Your task to perform on an android device: turn on notifications settings in the gmail app Image 0: 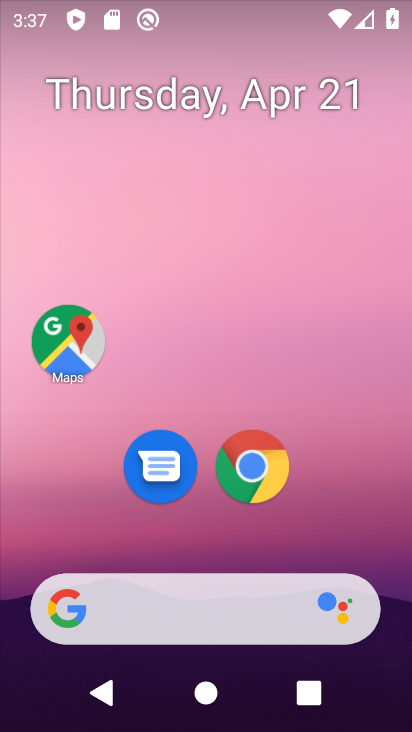
Step 0: drag from (208, 540) to (208, 190)
Your task to perform on an android device: turn on notifications settings in the gmail app Image 1: 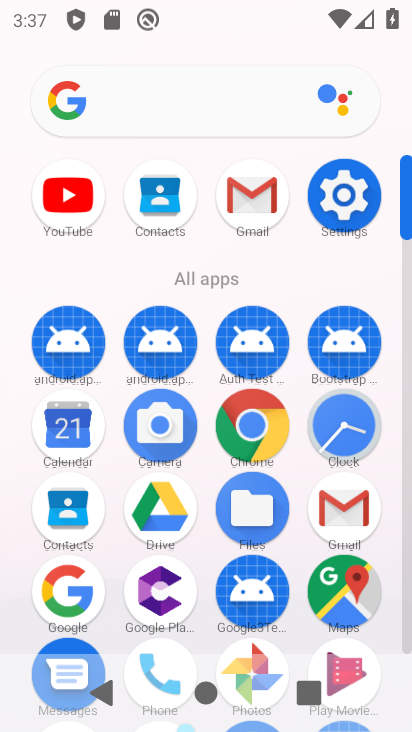
Step 1: click (256, 217)
Your task to perform on an android device: turn on notifications settings in the gmail app Image 2: 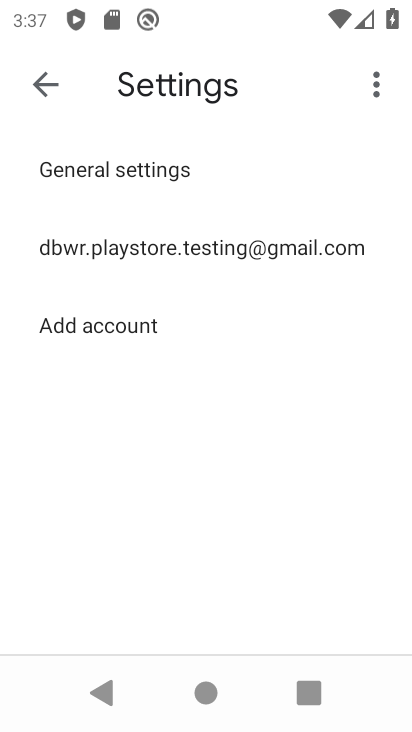
Step 2: click (48, 84)
Your task to perform on an android device: turn on notifications settings in the gmail app Image 3: 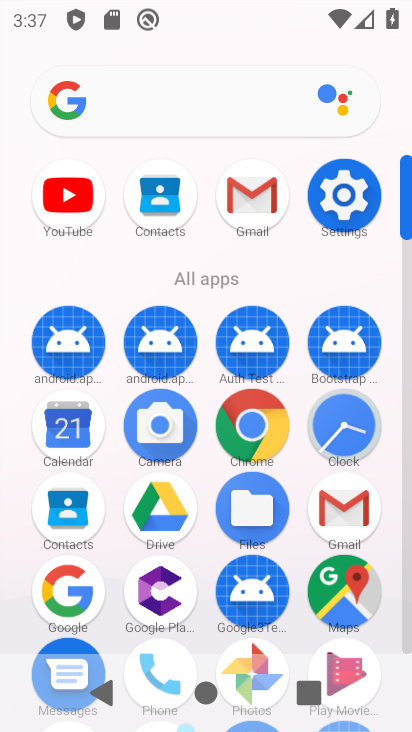
Step 3: click (336, 495)
Your task to perform on an android device: turn on notifications settings in the gmail app Image 4: 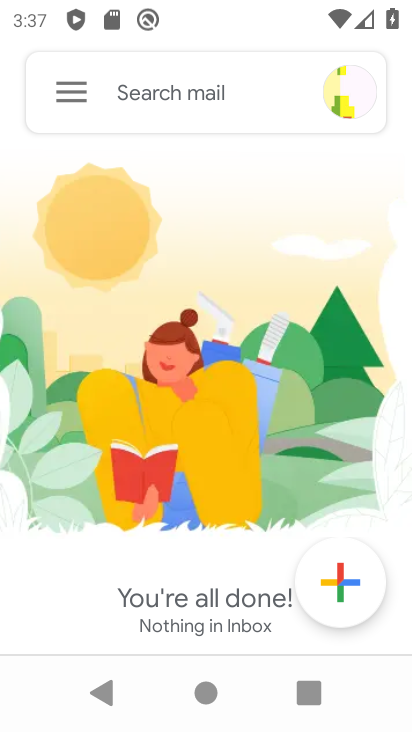
Step 4: click (86, 98)
Your task to perform on an android device: turn on notifications settings in the gmail app Image 5: 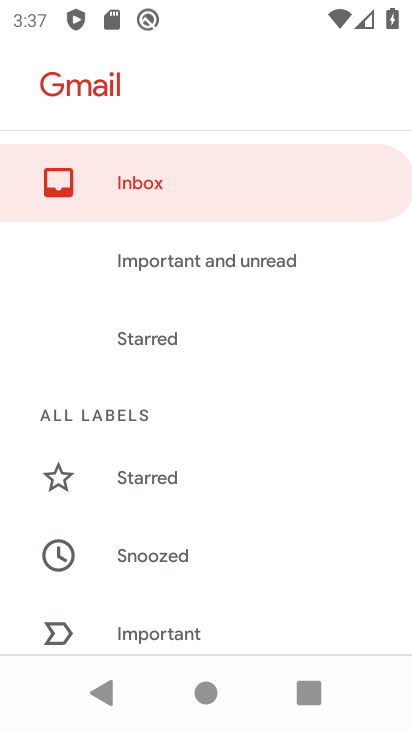
Step 5: drag from (195, 622) to (226, 327)
Your task to perform on an android device: turn on notifications settings in the gmail app Image 6: 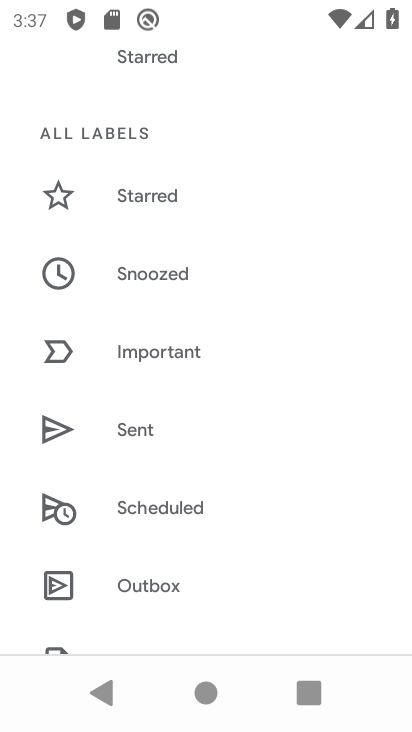
Step 6: drag from (211, 540) to (217, 348)
Your task to perform on an android device: turn on notifications settings in the gmail app Image 7: 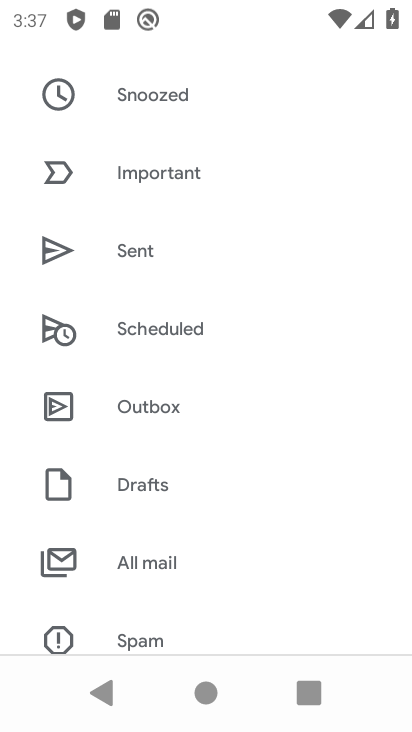
Step 7: drag from (223, 569) to (234, 313)
Your task to perform on an android device: turn on notifications settings in the gmail app Image 8: 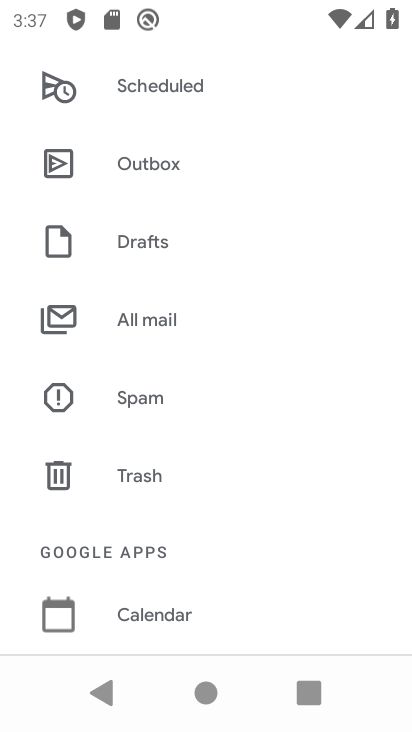
Step 8: drag from (228, 571) to (320, 283)
Your task to perform on an android device: turn on notifications settings in the gmail app Image 9: 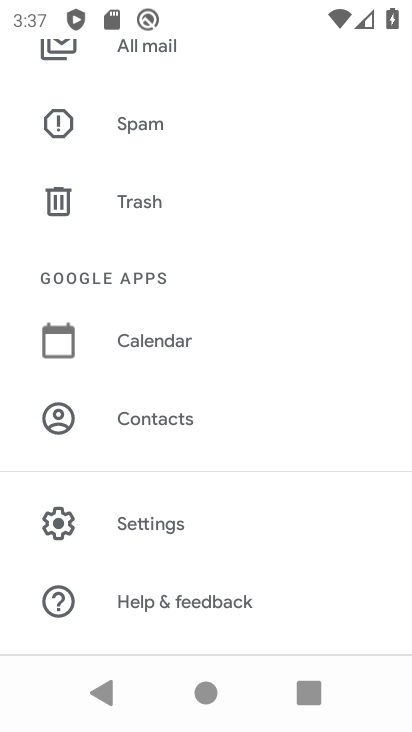
Step 9: click (169, 519)
Your task to perform on an android device: turn on notifications settings in the gmail app Image 10: 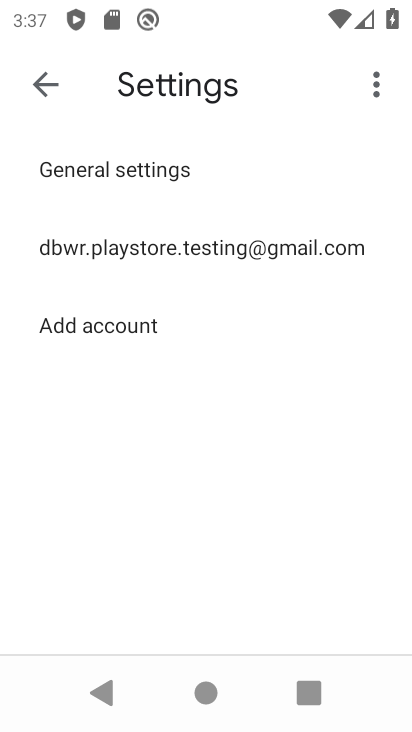
Step 10: click (235, 257)
Your task to perform on an android device: turn on notifications settings in the gmail app Image 11: 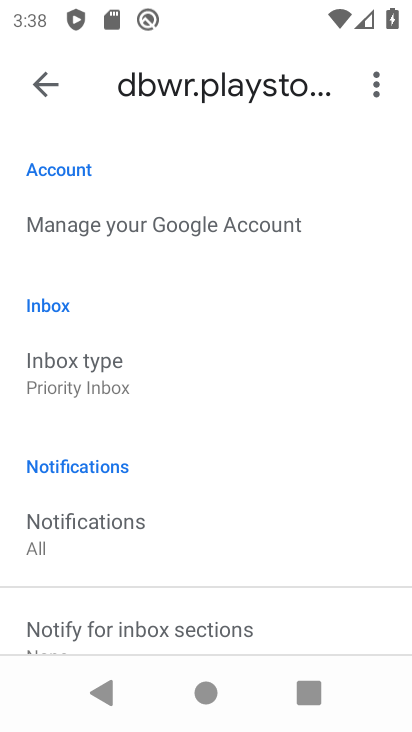
Step 11: drag from (201, 551) to (235, 201)
Your task to perform on an android device: turn on notifications settings in the gmail app Image 12: 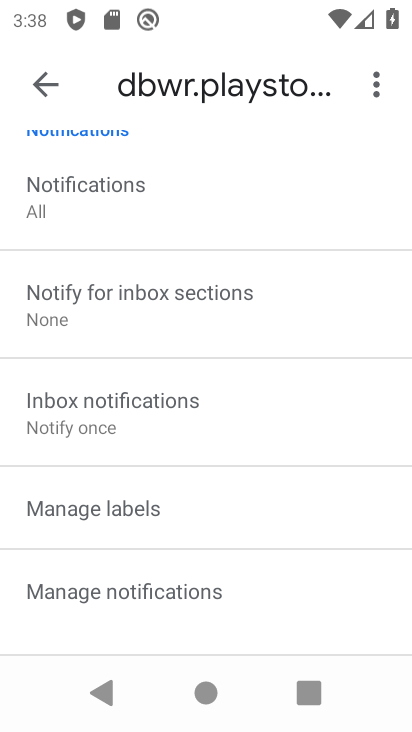
Step 12: click (180, 583)
Your task to perform on an android device: turn on notifications settings in the gmail app Image 13: 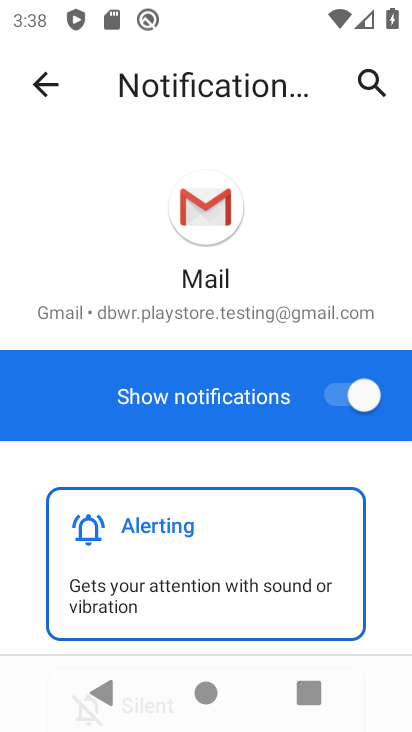
Step 13: task complete